Your task to perform on an android device: toggle location history Image 0: 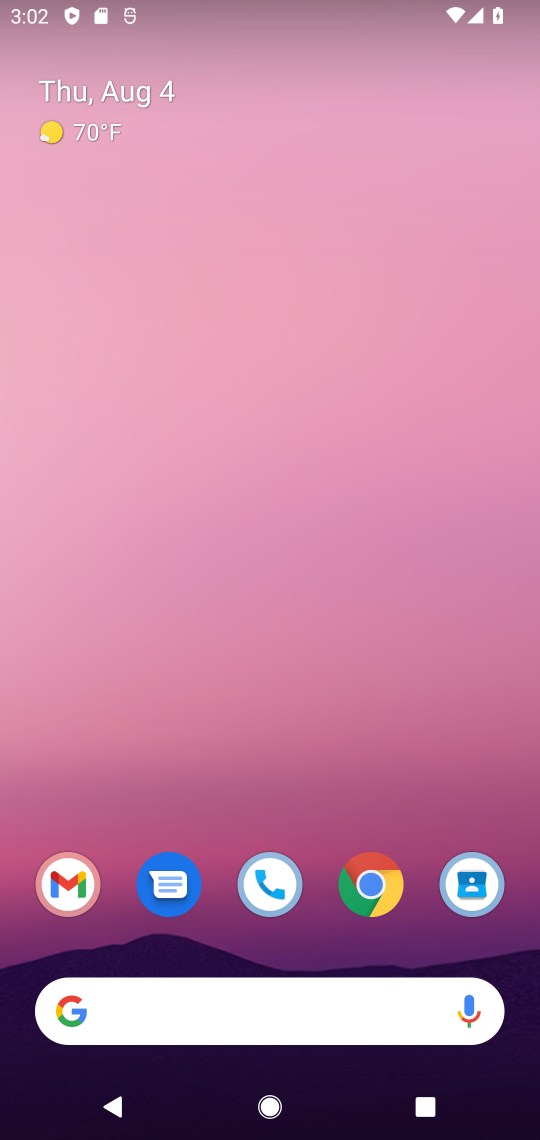
Step 0: press home button
Your task to perform on an android device: toggle location history Image 1: 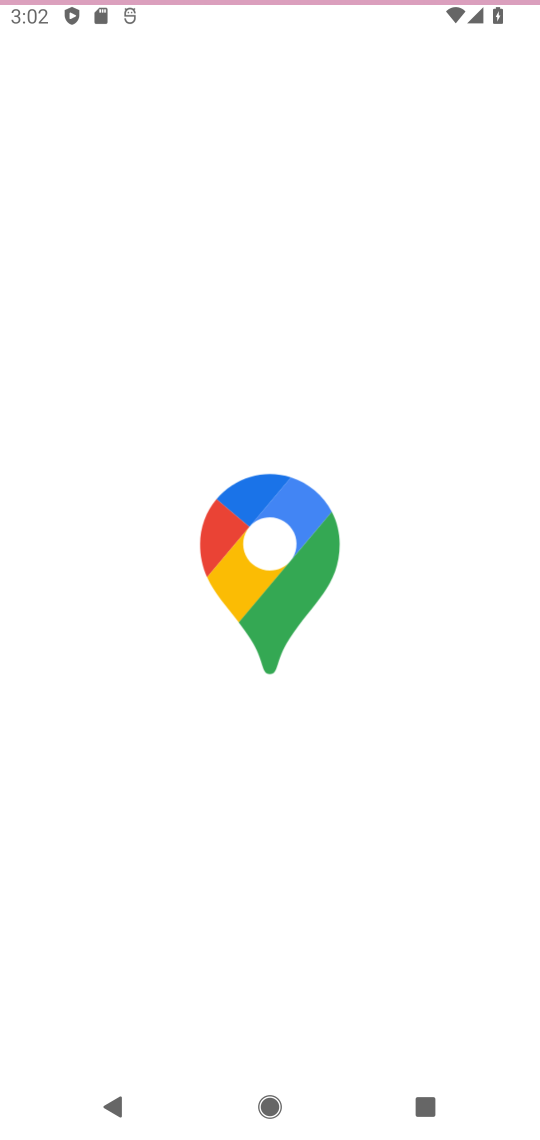
Step 1: click (262, 941)
Your task to perform on an android device: toggle location history Image 2: 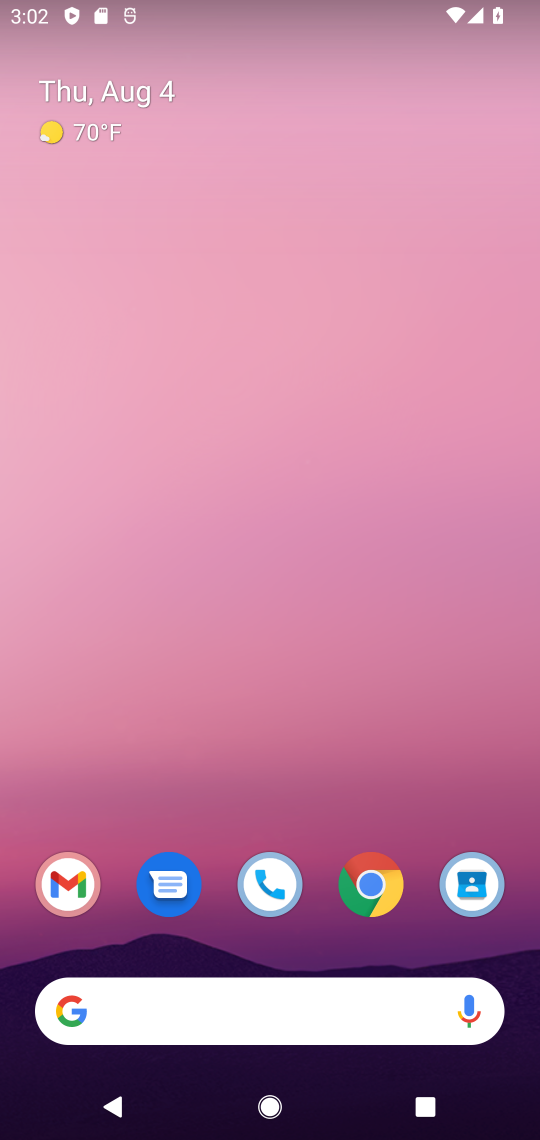
Step 2: drag from (256, 994) to (276, 180)
Your task to perform on an android device: toggle location history Image 3: 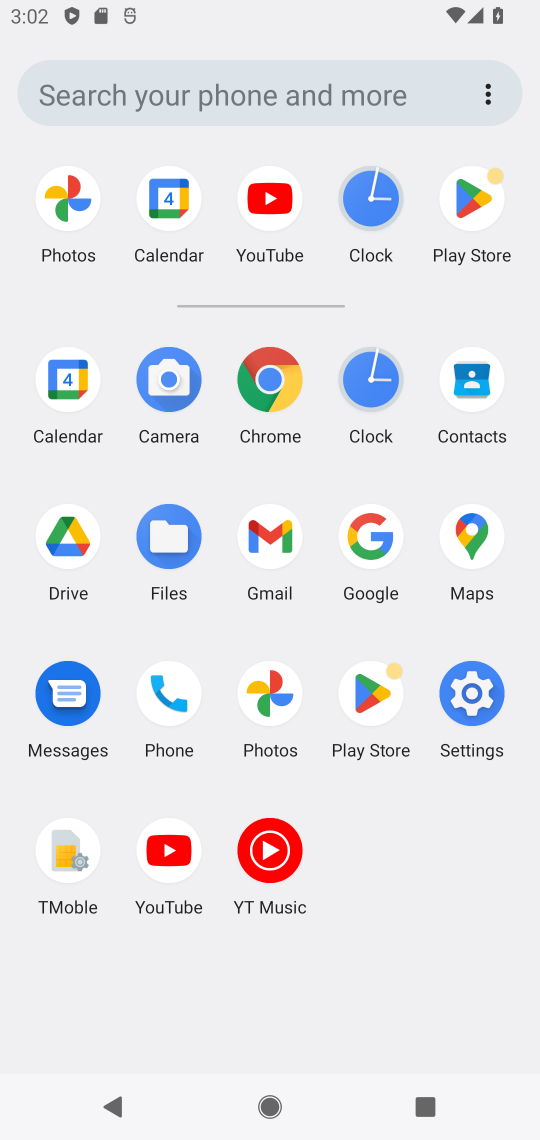
Step 3: click (455, 681)
Your task to perform on an android device: toggle location history Image 4: 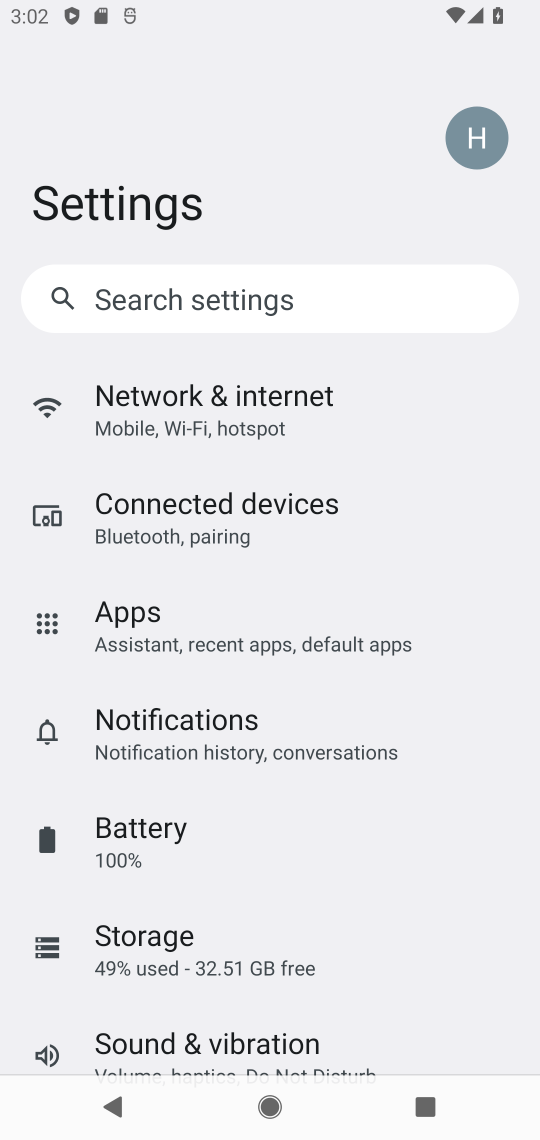
Step 4: drag from (310, 918) to (339, 427)
Your task to perform on an android device: toggle location history Image 5: 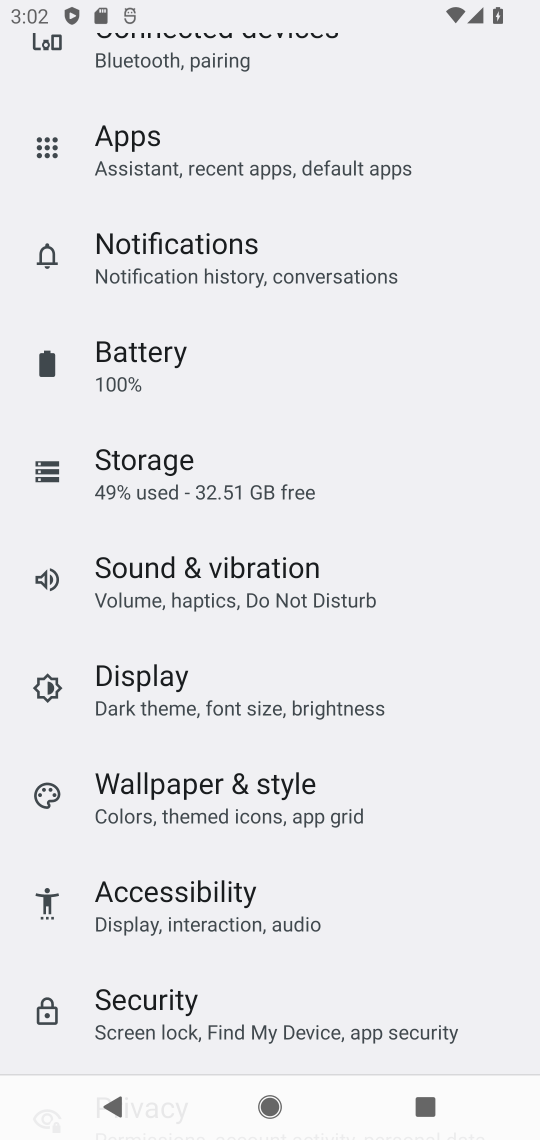
Step 5: drag from (245, 979) to (329, 445)
Your task to perform on an android device: toggle location history Image 6: 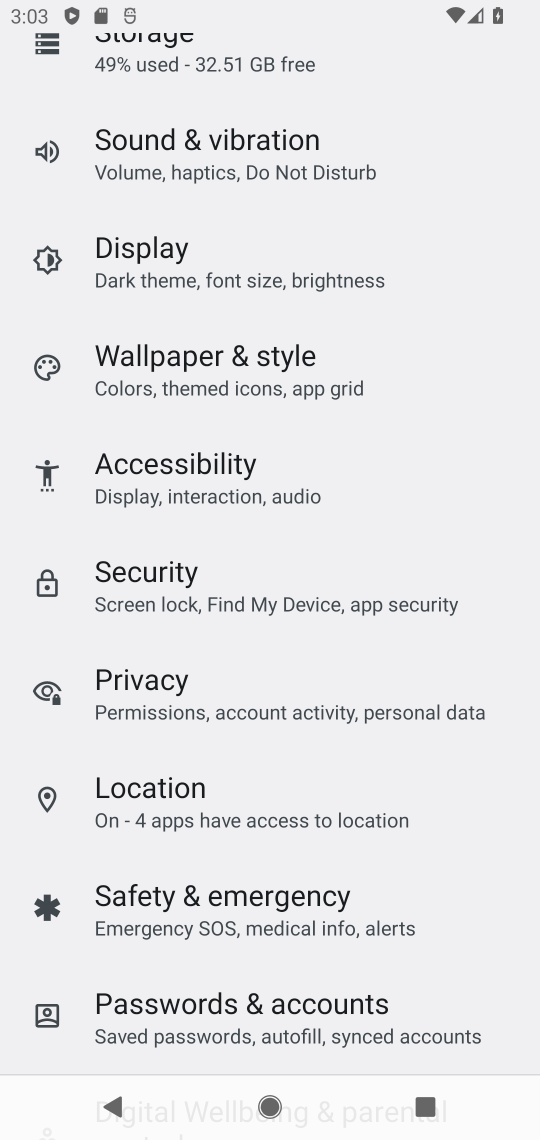
Step 6: click (241, 779)
Your task to perform on an android device: toggle location history Image 7: 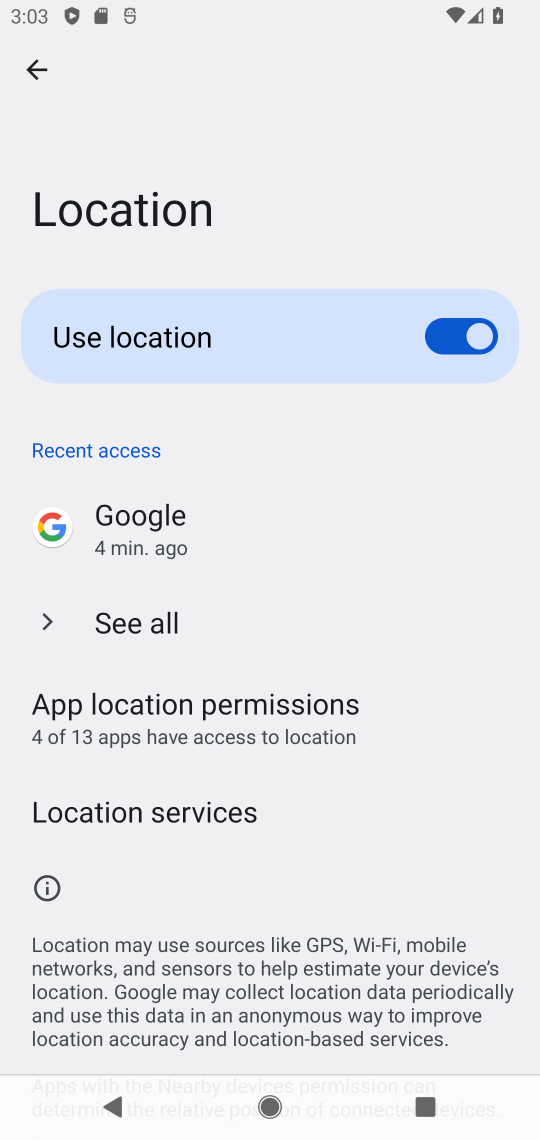
Step 7: click (83, 891)
Your task to perform on an android device: toggle location history Image 8: 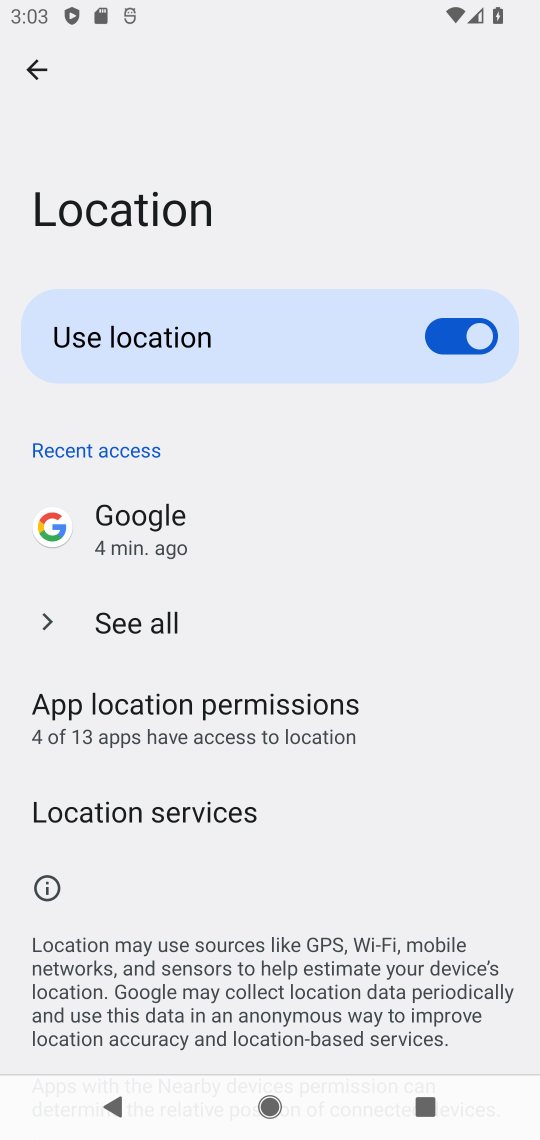
Step 8: click (137, 799)
Your task to perform on an android device: toggle location history Image 9: 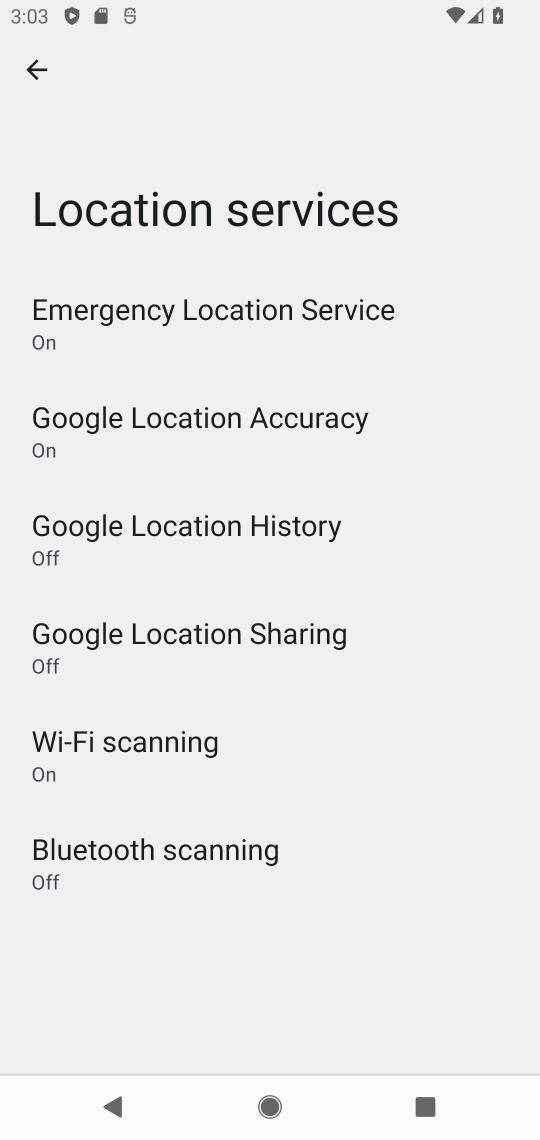
Step 9: click (233, 521)
Your task to perform on an android device: toggle location history Image 10: 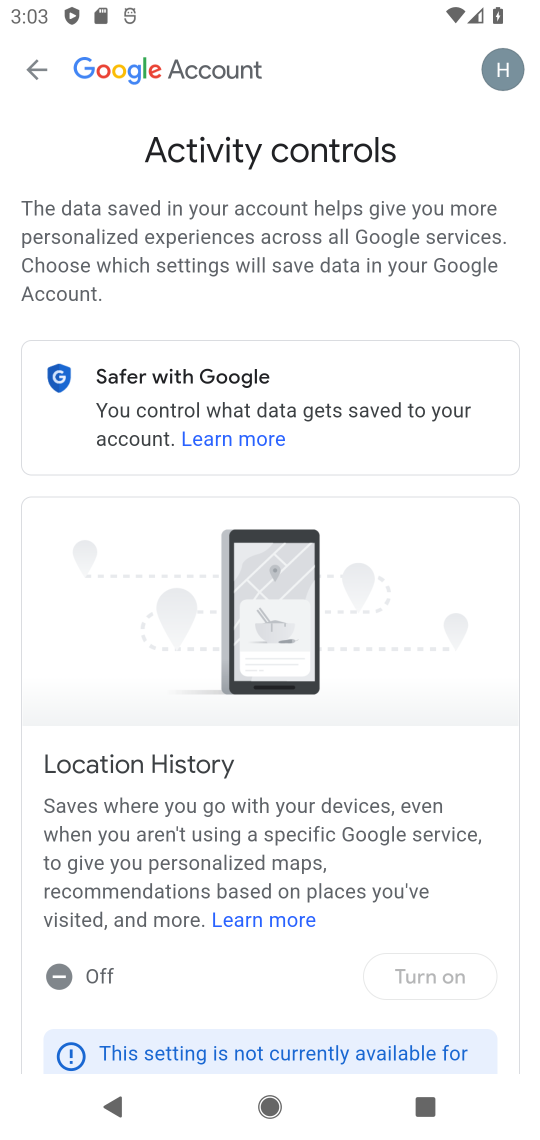
Step 10: click (107, 979)
Your task to perform on an android device: toggle location history Image 11: 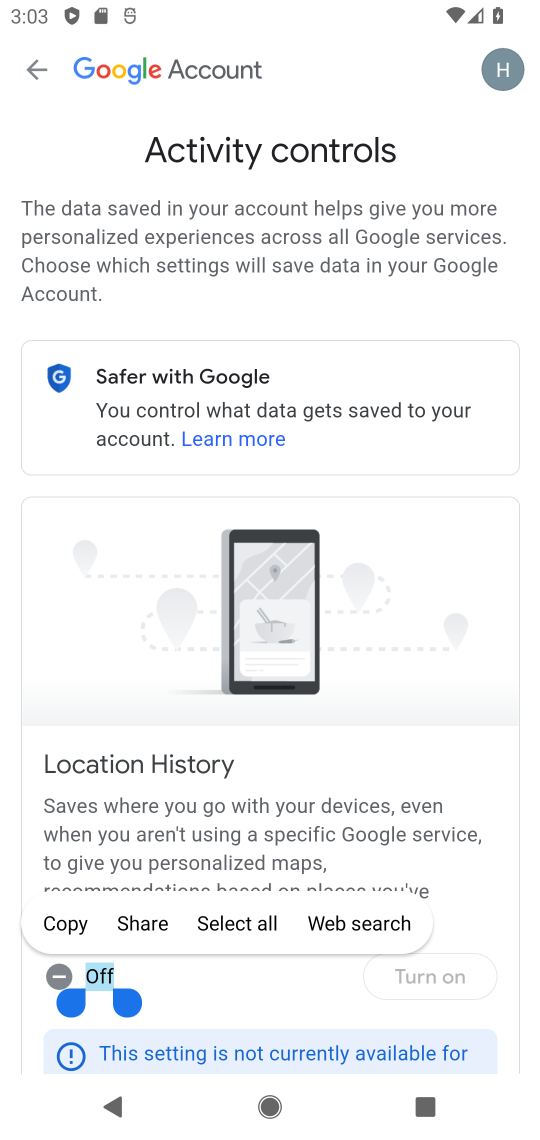
Step 11: click (89, 970)
Your task to perform on an android device: toggle location history Image 12: 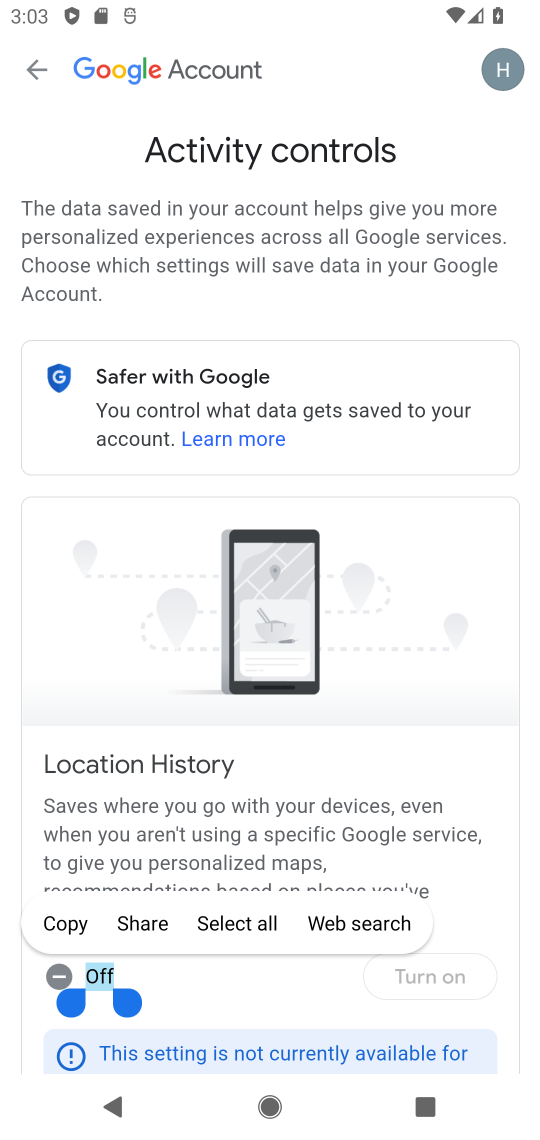
Step 12: click (89, 970)
Your task to perform on an android device: toggle location history Image 13: 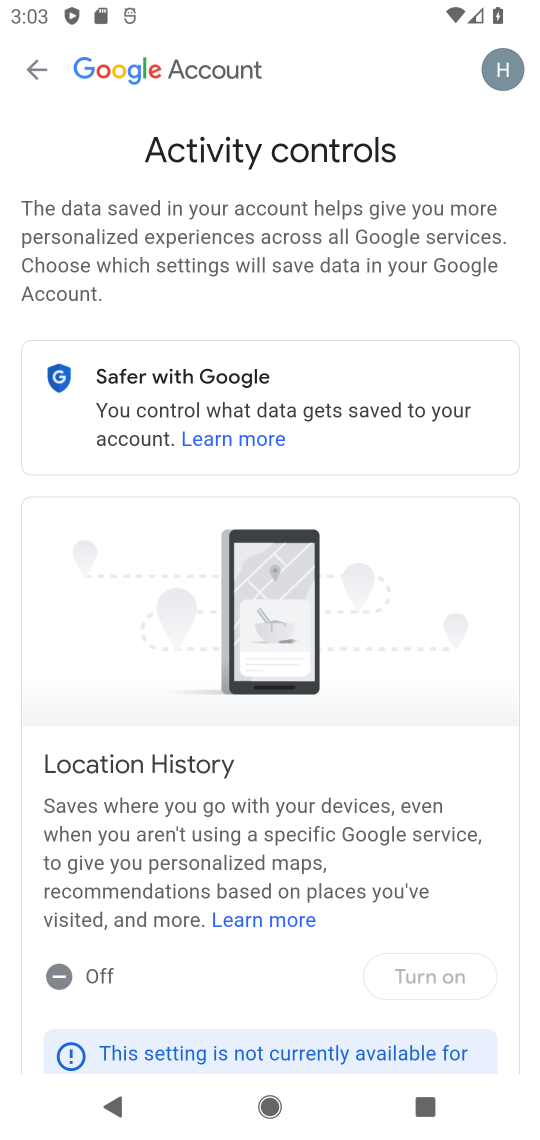
Step 13: click (87, 976)
Your task to perform on an android device: toggle location history Image 14: 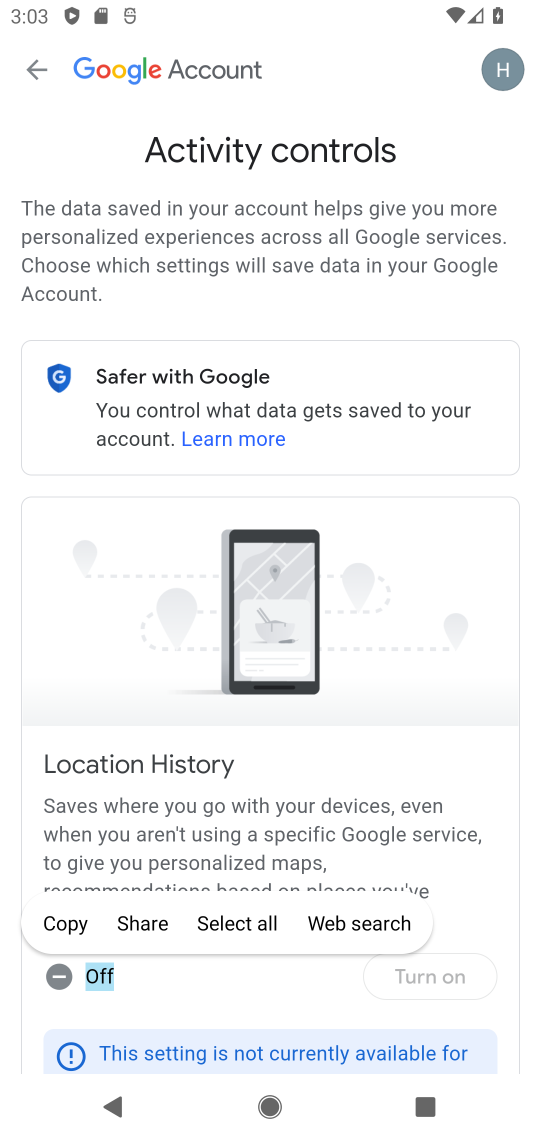
Step 14: click (87, 976)
Your task to perform on an android device: toggle location history Image 15: 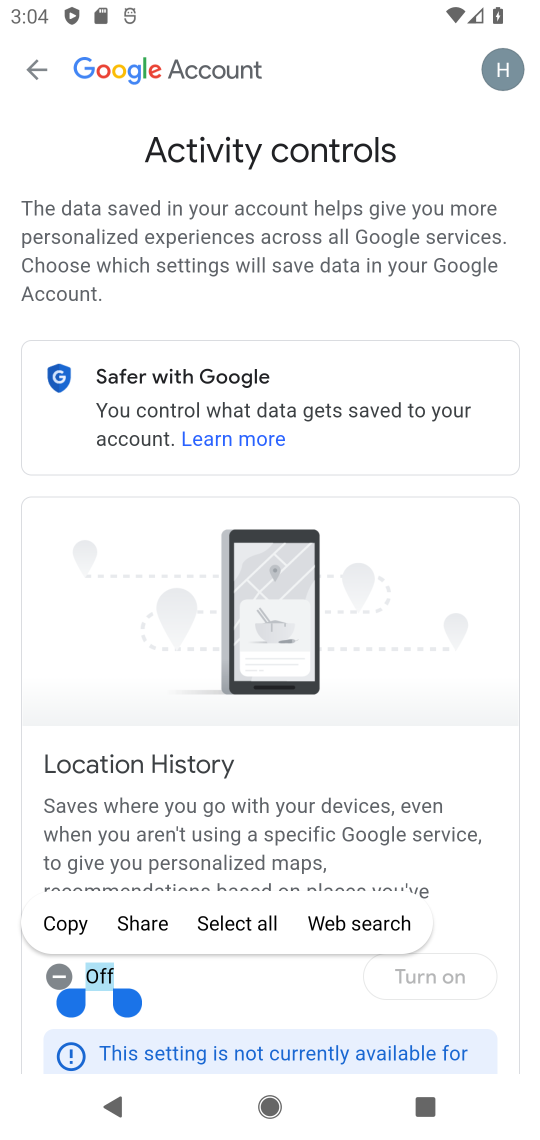
Step 15: click (197, 979)
Your task to perform on an android device: toggle location history Image 16: 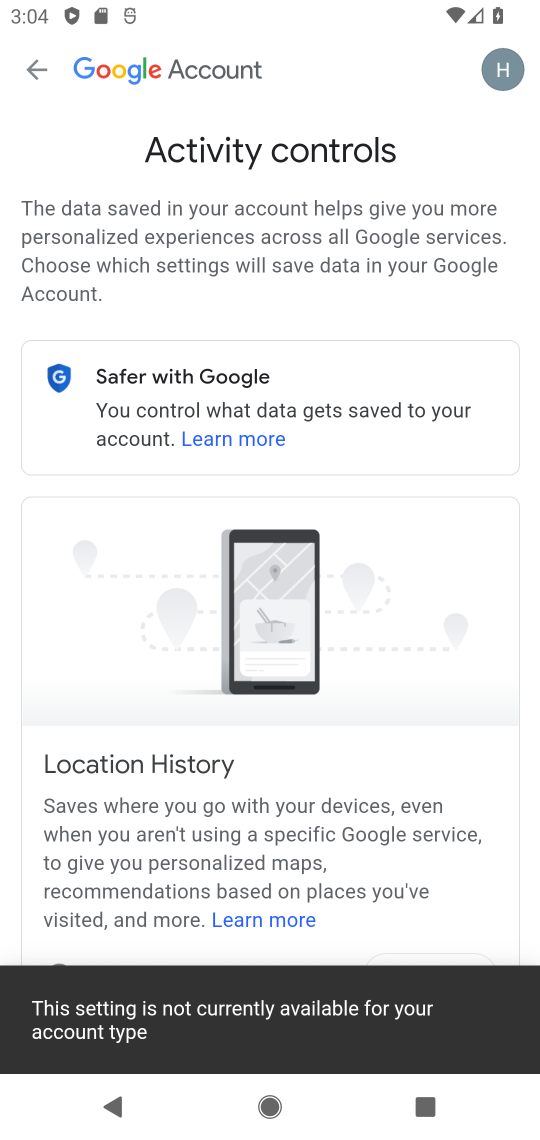
Step 16: click (72, 979)
Your task to perform on an android device: toggle location history Image 17: 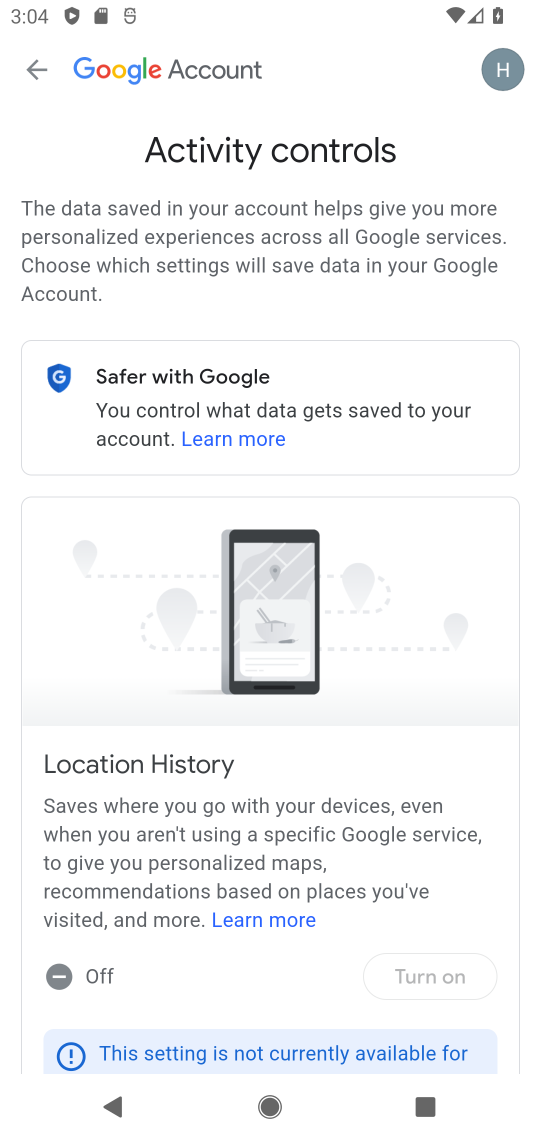
Step 17: task complete